Your task to perform on an android device: turn off javascript in the chrome app Image 0: 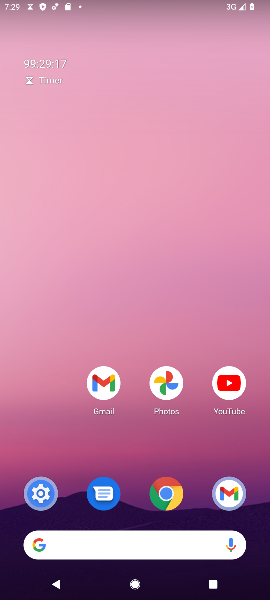
Step 0: drag from (152, 480) to (152, 146)
Your task to perform on an android device: turn off javascript in the chrome app Image 1: 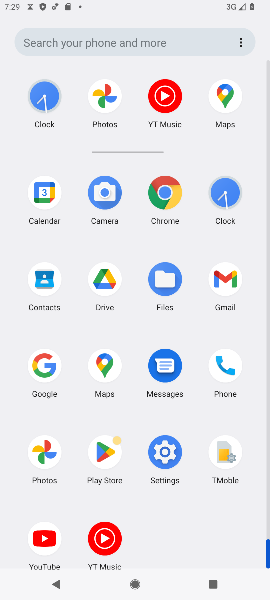
Step 1: click (161, 187)
Your task to perform on an android device: turn off javascript in the chrome app Image 2: 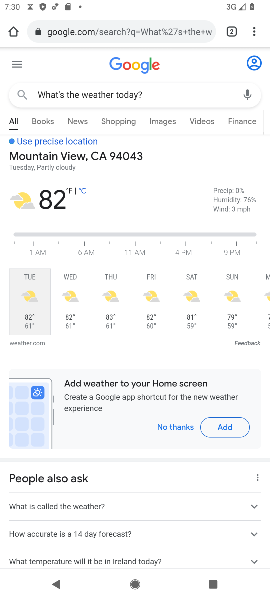
Step 2: click (253, 29)
Your task to perform on an android device: turn off javascript in the chrome app Image 3: 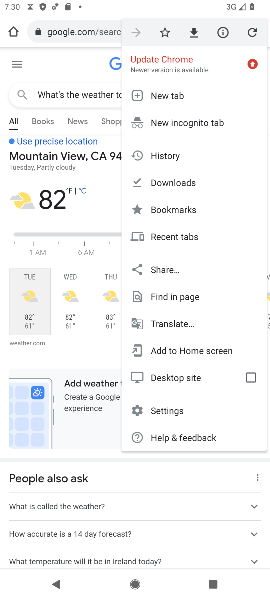
Step 3: click (183, 412)
Your task to perform on an android device: turn off javascript in the chrome app Image 4: 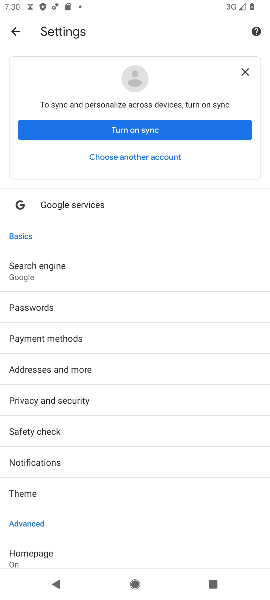
Step 4: drag from (142, 535) to (146, 209)
Your task to perform on an android device: turn off javascript in the chrome app Image 5: 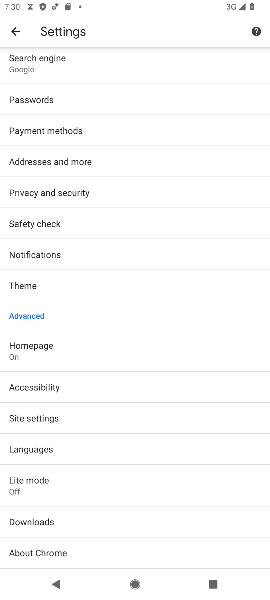
Step 5: click (73, 415)
Your task to perform on an android device: turn off javascript in the chrome app Image 6: 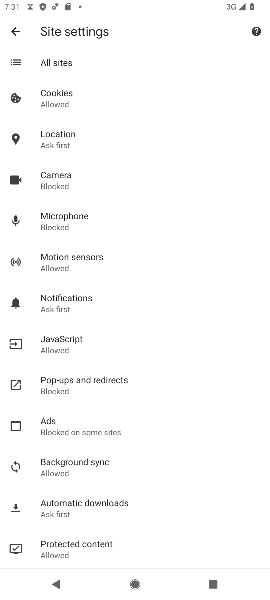
Step 6: click (72, 350)
Your task to perform on an android device: turn off javascript in the chrome app Image 7: 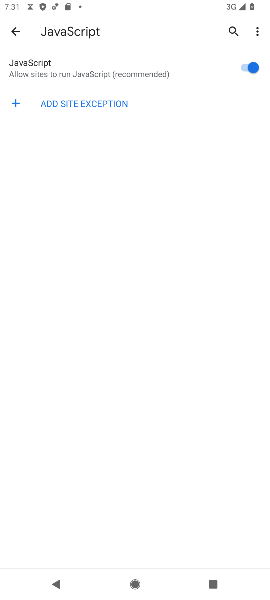
Step 7: click (255, 67)
Your task to perform on an android device: turn off javascript in the chrome app Image 8: 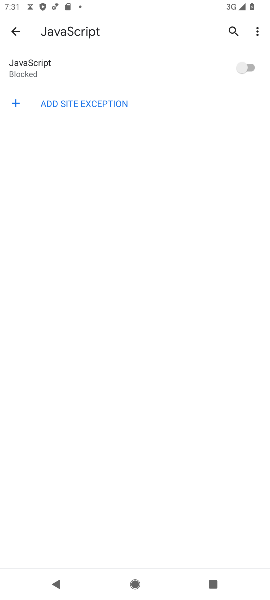
Step 8: task complete